Your task to perform on an android device: turn off priority inbox in the gmail app Image 0: 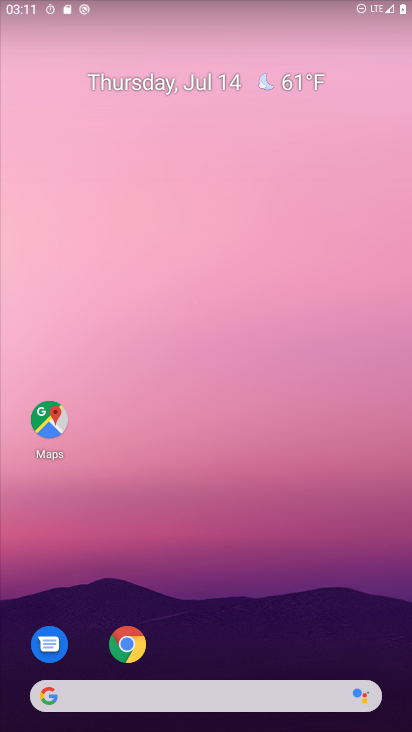
Step 0: drag from (289, 537) to (232, 17)
Your task to perform on an android device: turn off priority inbox in the gmail app Image 1: 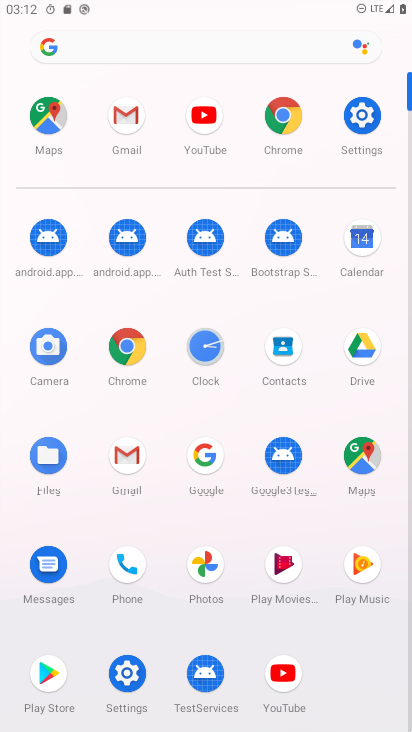
Step 1: click (361, 109)
Your task to perform on an android device: turn off priority inbox in the gmail app Image 2: 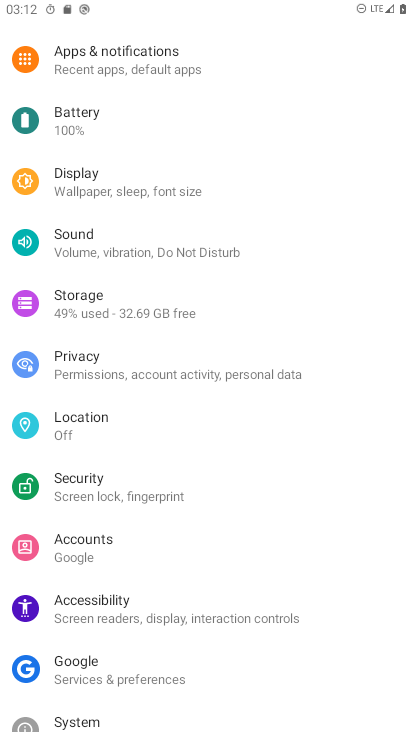
Step 2: press home button
Your task to perform on an android device: turn off priority inbox in the gmail app Image 3: 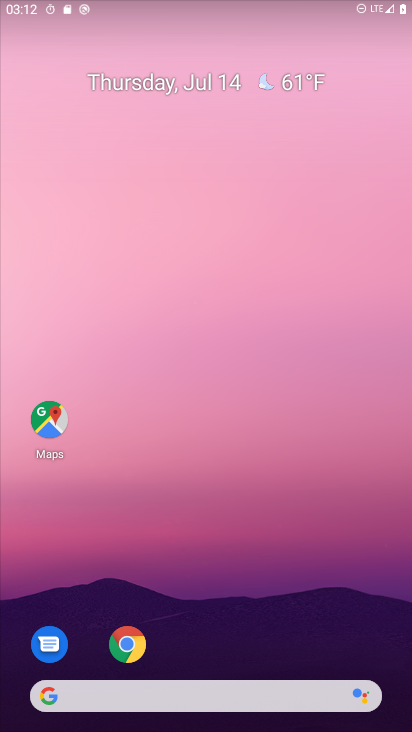
Step 3: drag from (302, 642) to (233, 124)
Your task to perform on an android device: turn off priority inbox in the gmail app Image 4: 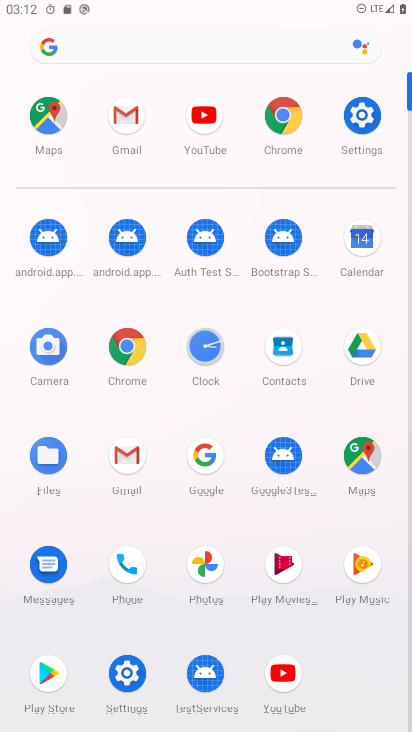
Step 4: click (121, 110)
Your task to perform on an android device: turn off priority inbox in the gmail app Image 5: 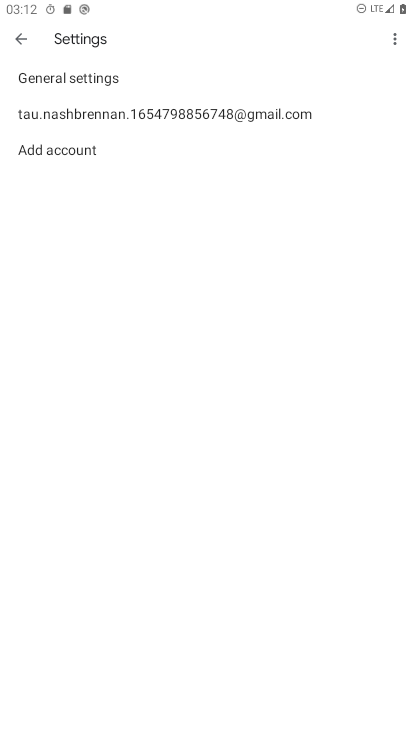
Step 5: click (124, 114)
Your task to perform on an android device: turn off priority inbox in the gmail app Image 6: 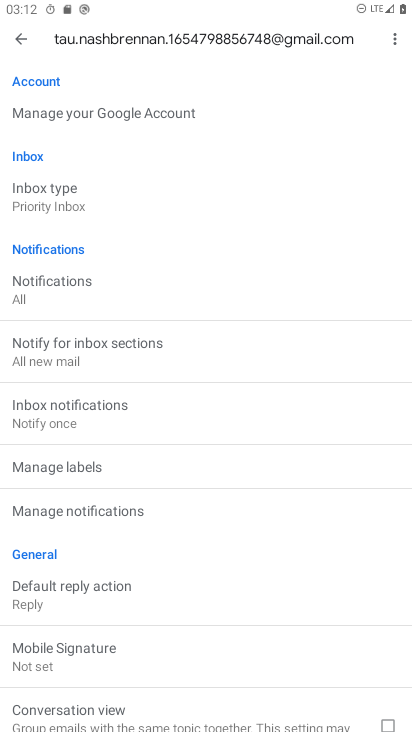
Step 6: click (70, 195)
Your task to perform on an android device: turn off priority inbox in the gmail app Image 7: 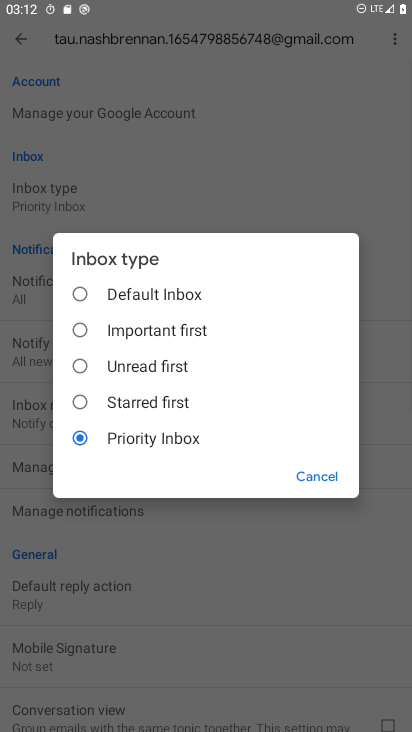
Step 7: task complete